Your task to perform on an android device: Go to CNN.com Image 0: 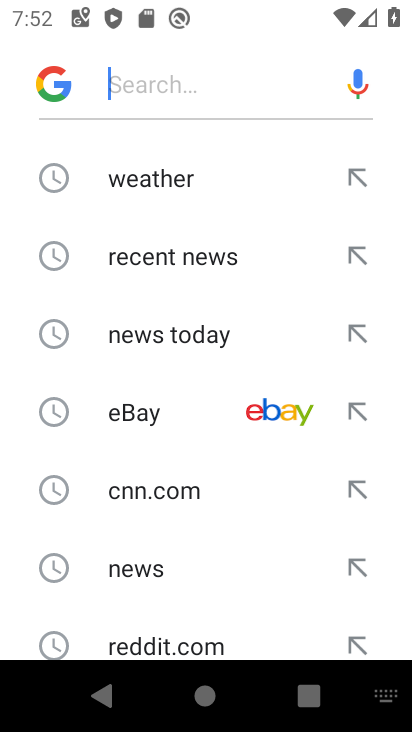
Step 0: press back button
Your task to perform on an android device: Go to CNN.com Image 1: 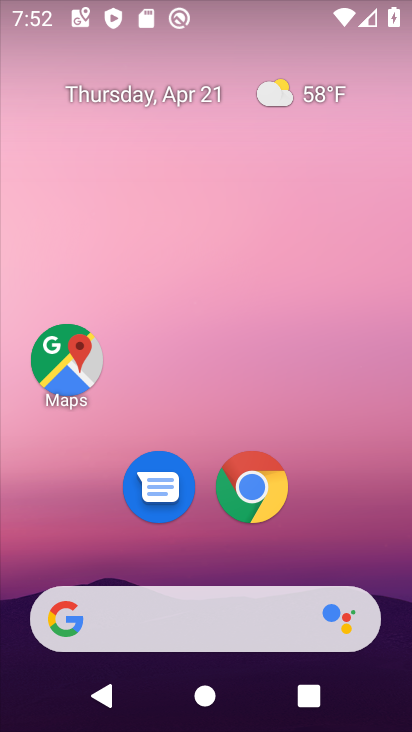
Step 1: drag from (344, 548) to (231, 4)
Your task to perform on an android device: Go to CNN.com Image 2: 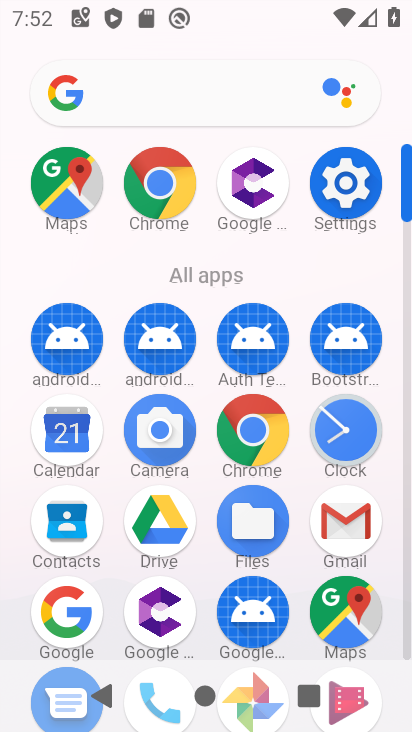
Step 2: click (159, 184)
Your task to perform on an android device: Go to CNN.com Image 3: 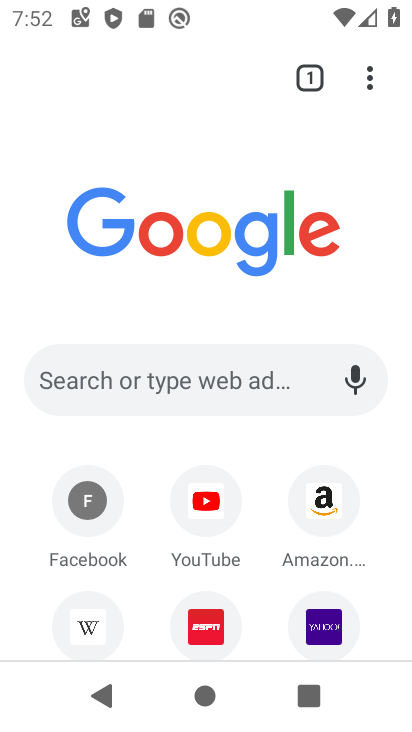
Step 3: click (159, 382)
Your task to perform on an android device: Go to CNN.com Image 4: 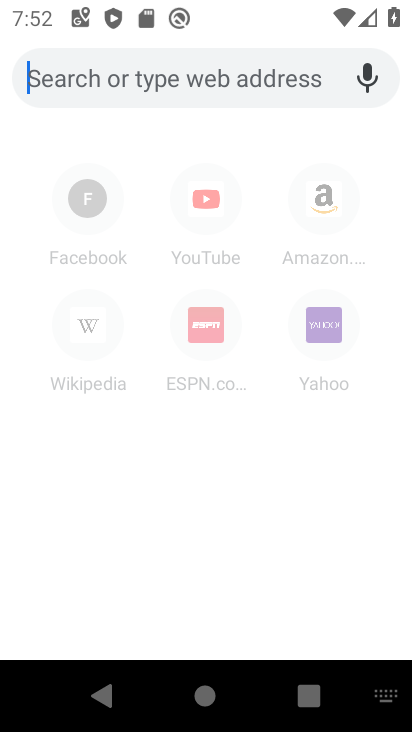
Step 4: type "CNN.com"
Your task to perform on an android device: Go to CNN.com Image 5: 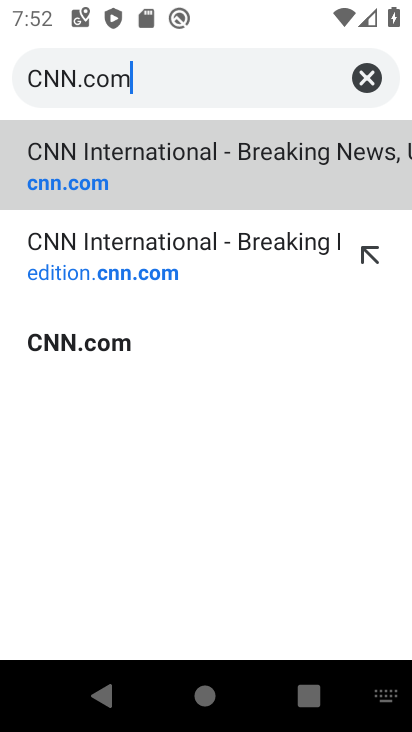
Step 5: type ""
Your task to perform on an android device: Go to CNN.com Image 6: 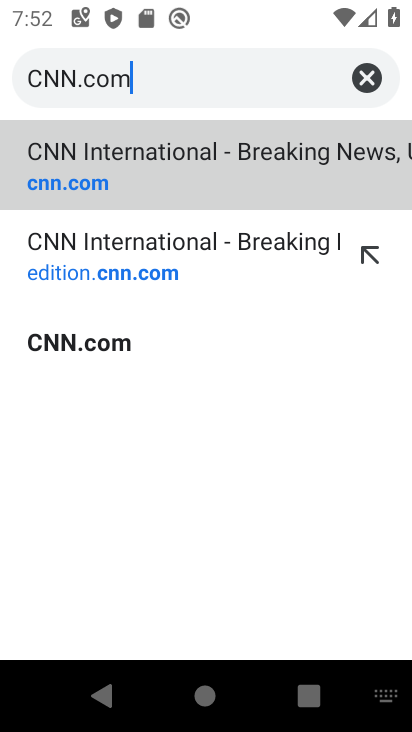
Step 6: click (245, 190)
Your task to perform on an android device: Go to CNN.com Image 7: 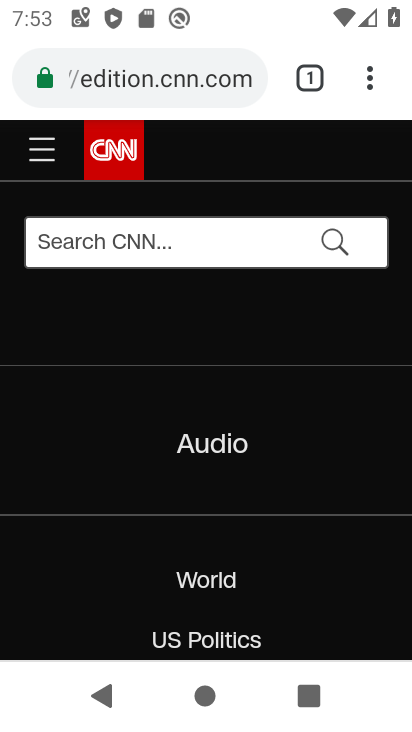
Step 7: task complete